Your task to perform on an android device: What's on my calendar tomorrow? Image 0: 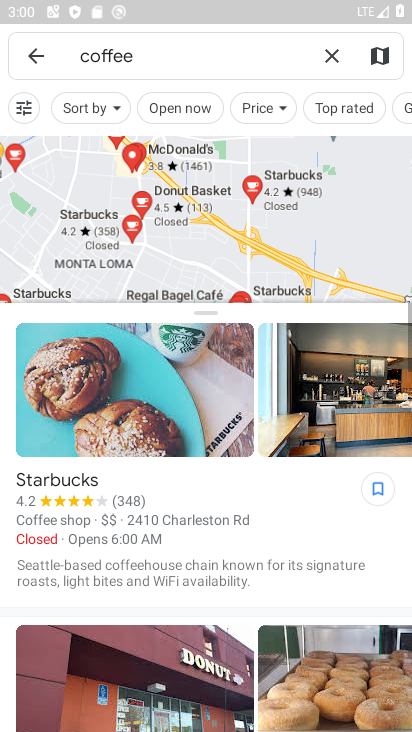
Step 0: press home button
Your task to perform on an android device: What's on my calendar tomorrow? Image 1: 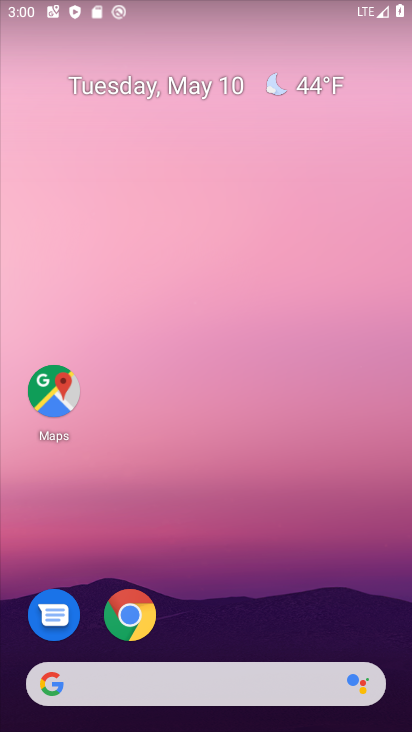
Step 1: drag from (324, 598) to (305, 4)
Your task to perform on an android device: What's on my calendar tomorrow? Image 2: 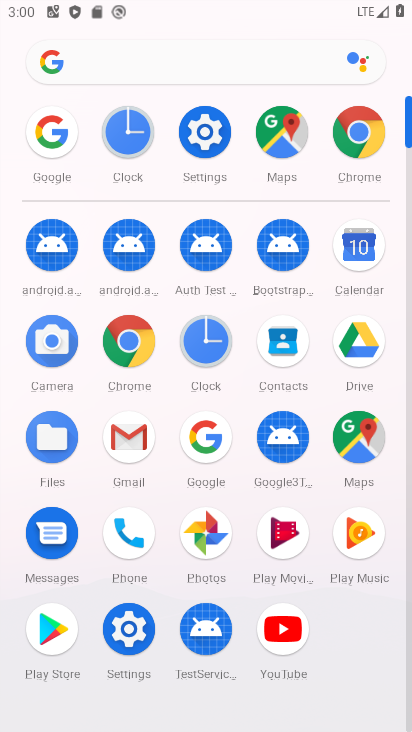
Step 2: click (367, 241)
Your task to perform on an android device: What's on my calendar tomorrow? Image 3: 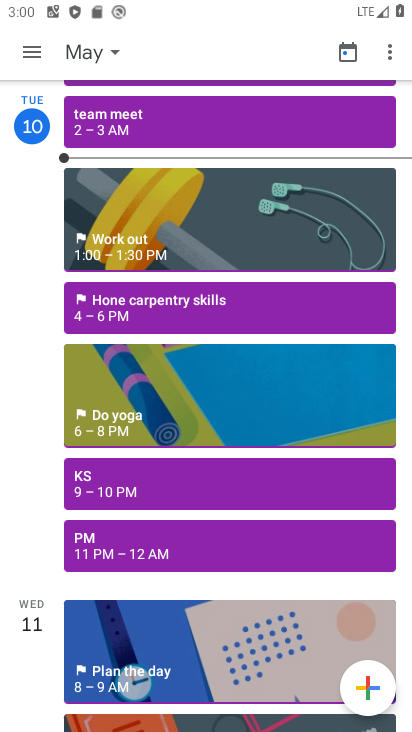
Step 3: click (119, 55)
Your task to perform on an android device: What's on my calendar tomorrow? Image 4: 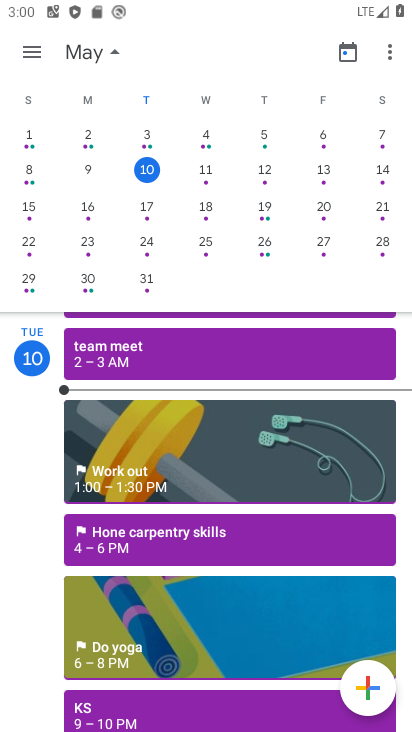
Step 4: click (212, 172)
Your task to perform on an android device: What's on my calendar tomorrow? Image 5: 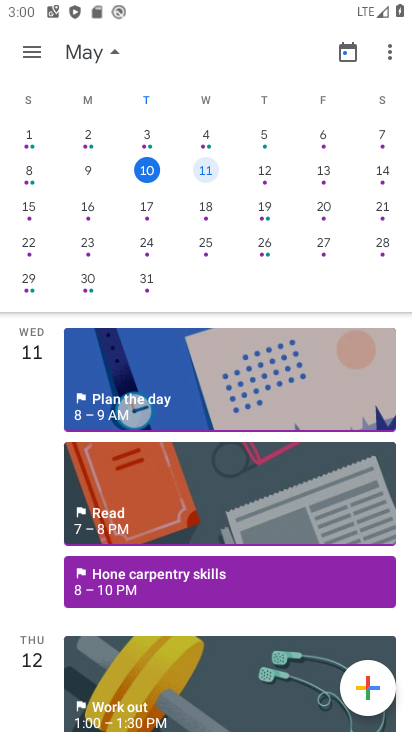
Step 5: click (209, 157)
Your task to perform on an android device: What's on my calendar tomorrow? Image 6: 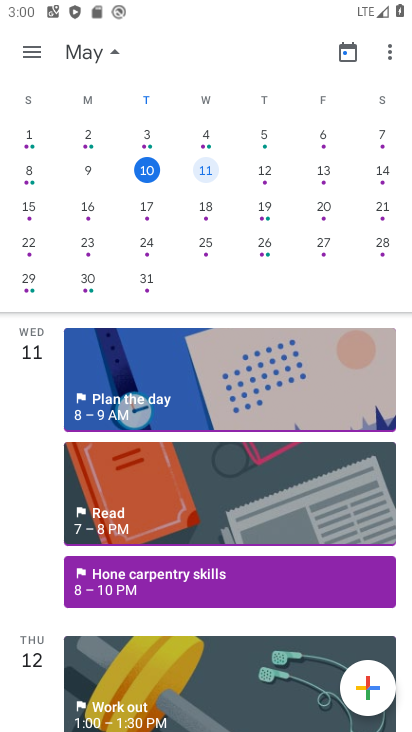
Step 6: click (108, 53)
Your task to perform on an android device: What's on my calendar tomorrow? Image 7: 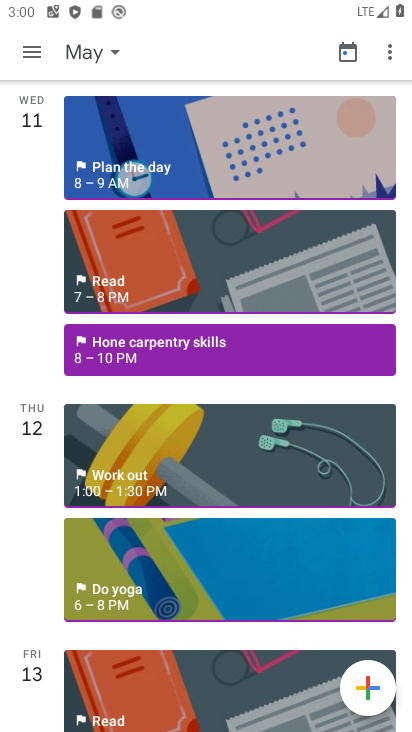
Step 7: task complete